Your task to perform on an android device: Do I have any events this weekend? Image 0: 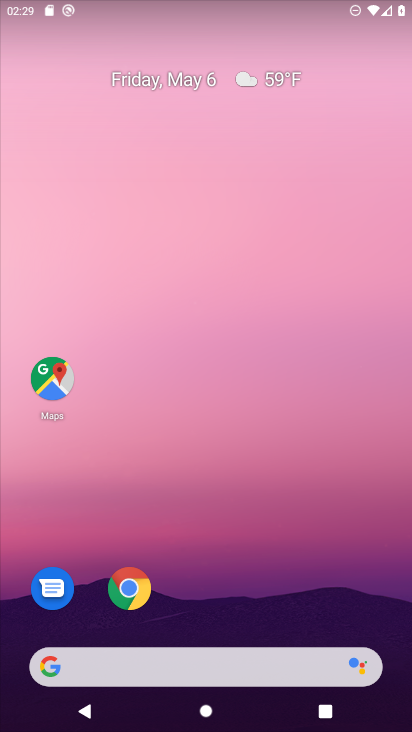
Step 0: drag from (270, 636) to (184, 121)
Your task to perform on an android device: Do I have any events this weekend? Image 1: 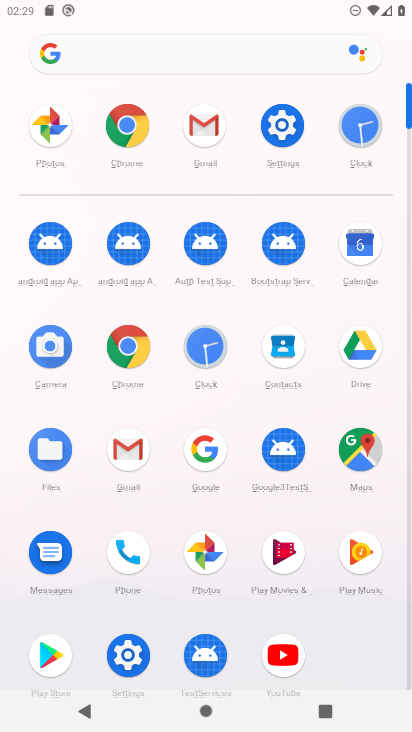
Step 1: click (365, 251)
Your task to perform on an android device: Do I have any events this weekend? Image 2: 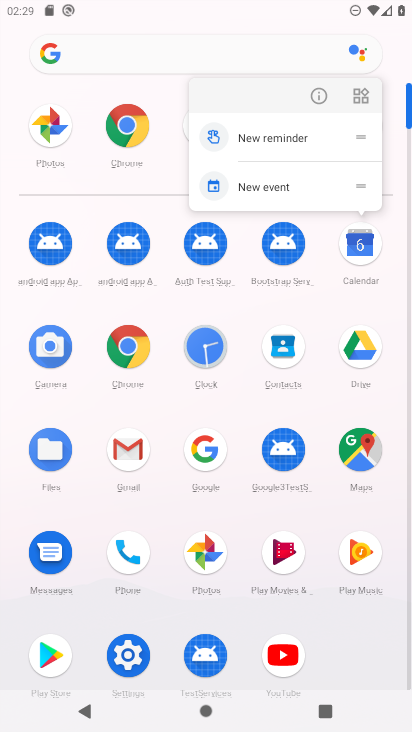
Step 2: click (365, 251)
Your task to perform on an android device: Do I have any events this weekend? Image 3: 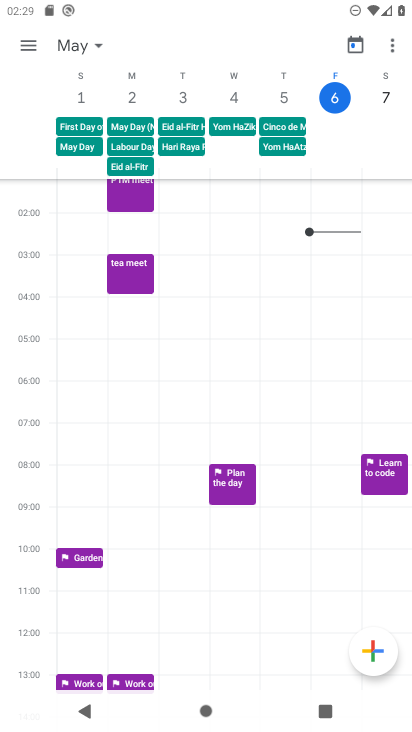
Step 3: task complete